Your task to perform on an android device: set the timer Image 0: 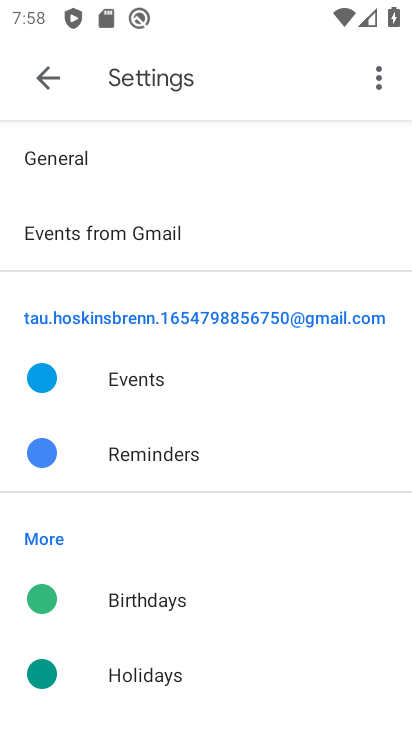
Step 0: press back button
Your task to perform on an android device: set the timer Image 1: 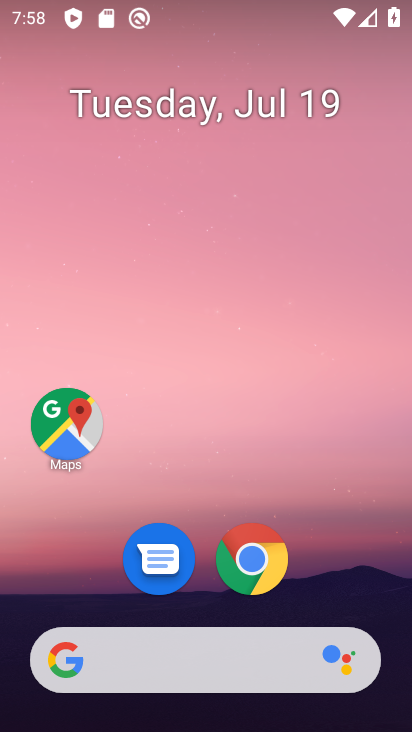
Step 1: drag from (68, 566) to (227, 20)
Your task to perform on an android device: set the timer Image 2: 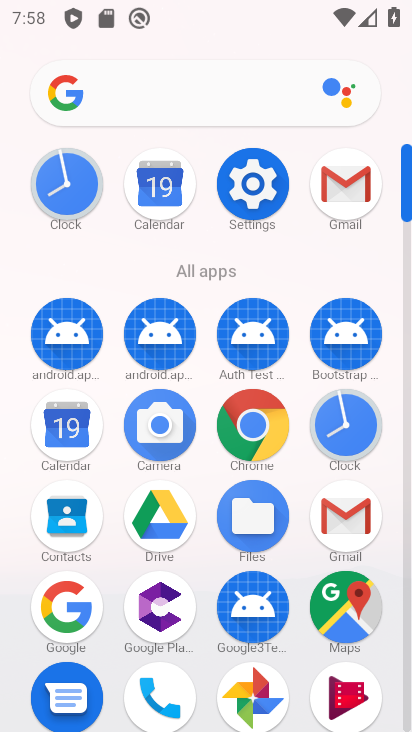
Step 2: click (329, 433)
Your task to perform on an android device: set the timer Image 3: 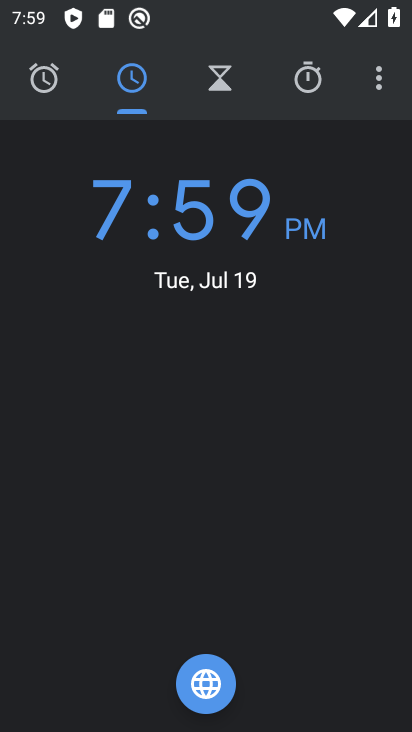
Step 3: click (50, 79)
Your task to perform on an android device: set the timer Image 4: 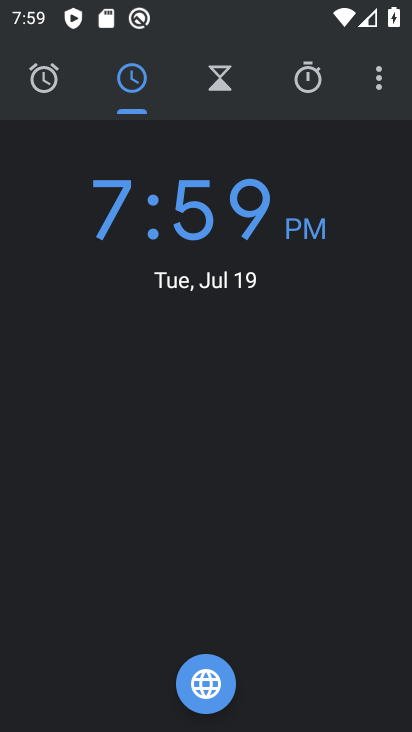
Step 4: click (308, 80)
Your task to perform on an android device: set the timer Image 5: 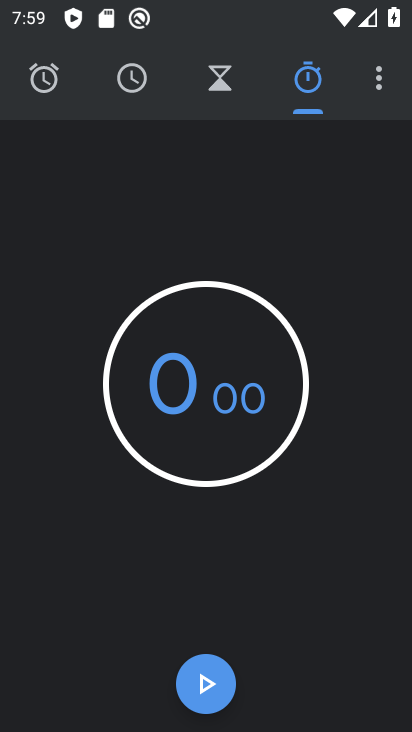
Step 5: click (209, 80)
Your task to perform on an android device: set the timer Image 6: 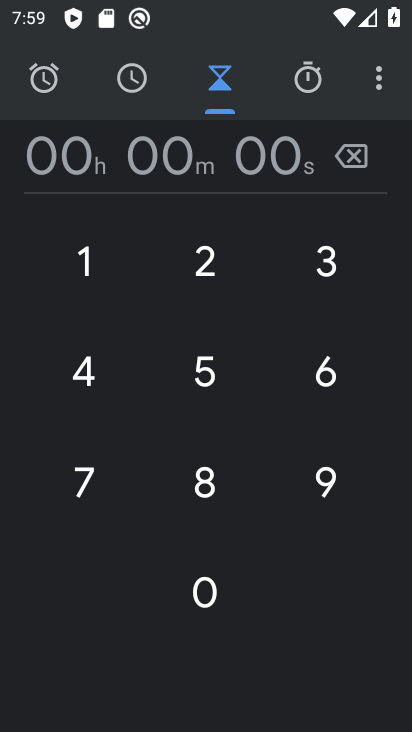
Step 6: click (54, 74)
Your task to perform on an android device: set the timer Image 7: 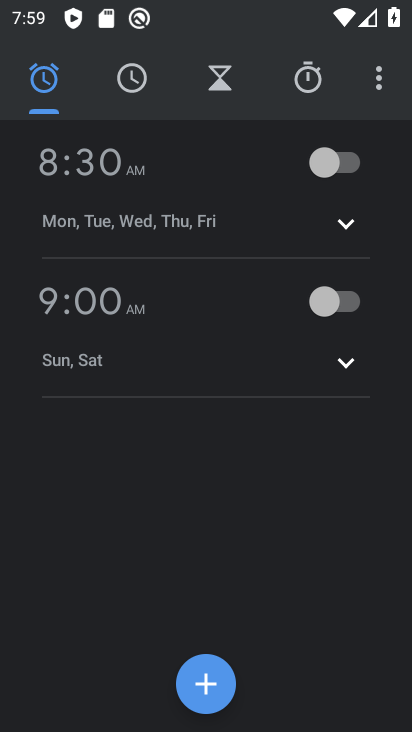
Step 7: click (229, 75)
Your task to perform on an android device: set the timer Image 8: 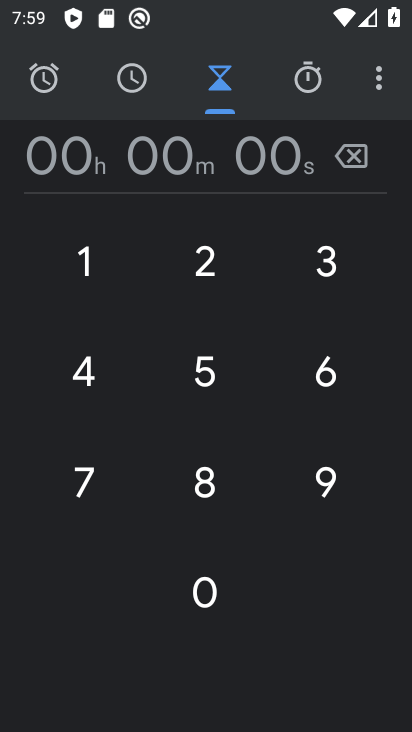
Step 8: click (205, 259)
Your task to perform on an android device: set the timer Image 9: 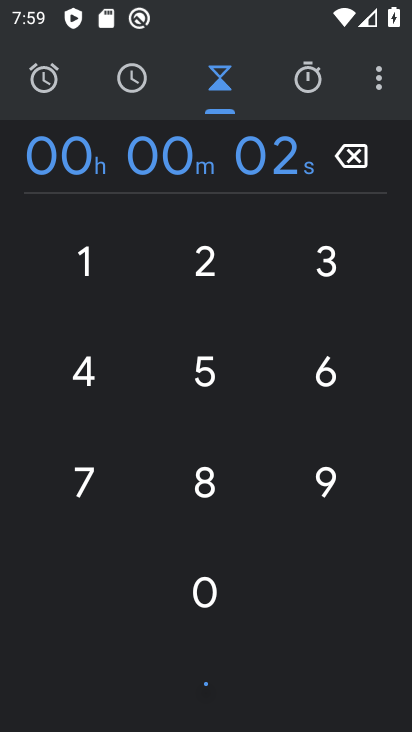
Step 9: click (339, 252)
Your task to perform on an android device: set the timer Image 10: 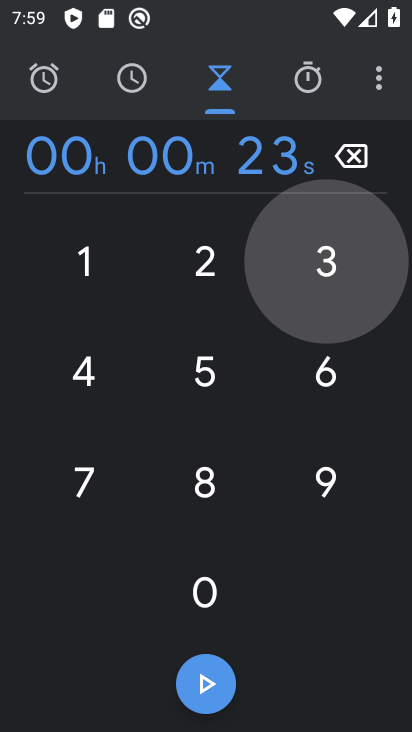
Step 10: click (193, 368)
Your task to perform on an android device: set the timer Image 11: 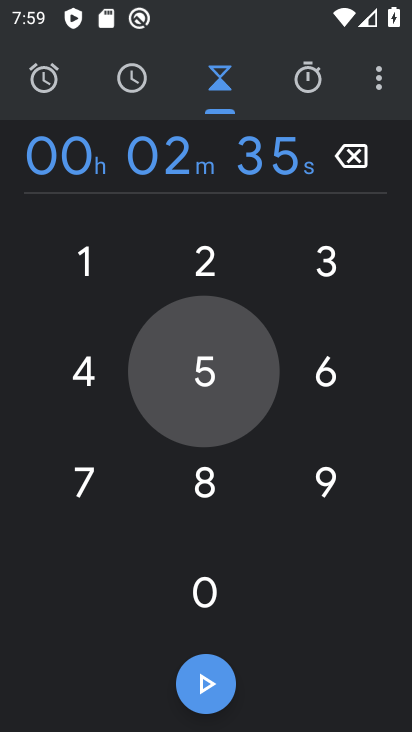
Step 11: click (295, 383)
Your task to perform on an android device: set the timer Image 12: 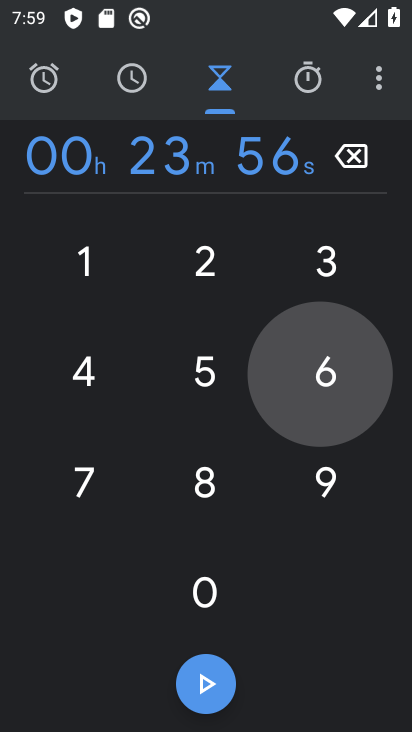
Step 12: click (124, 370)
Your task to perform on an android device: set the timer Image 13: 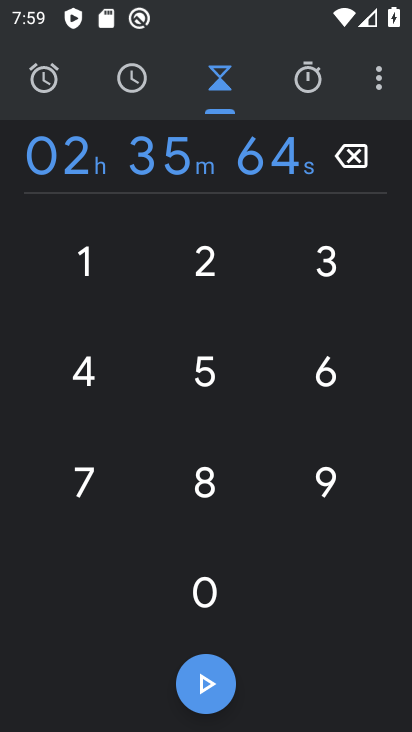
Step 13: click (95, 362)
Your task to perform on an android device: set the timer Image 14: 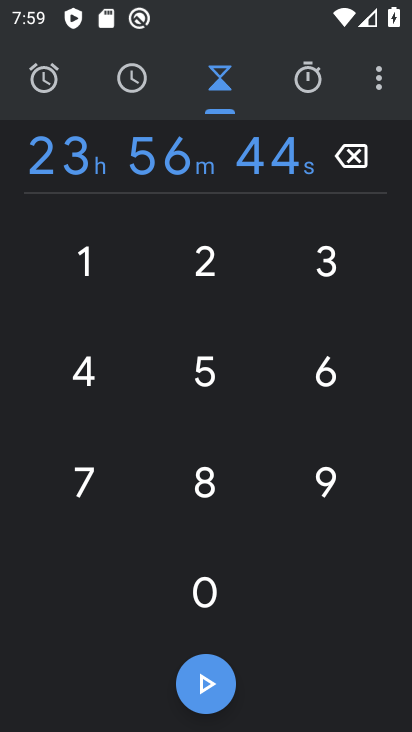
Step 14: click (198, 686)
Your task to perform on an android device: set the timer Image 15: 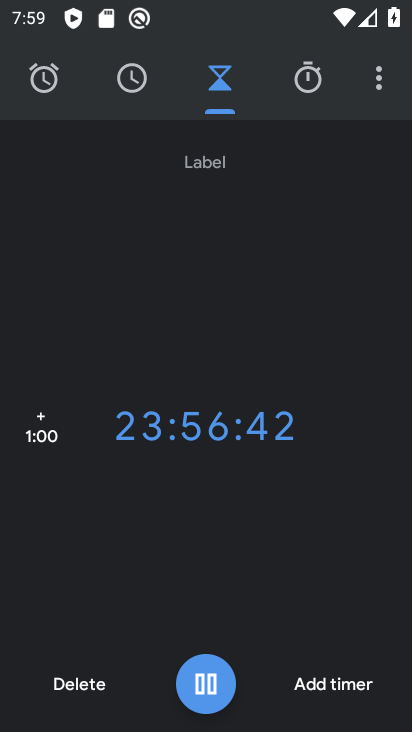
Step 15: task complete